Your task to perform on an android device: delete the emails in spam in the gmail app Image 0: 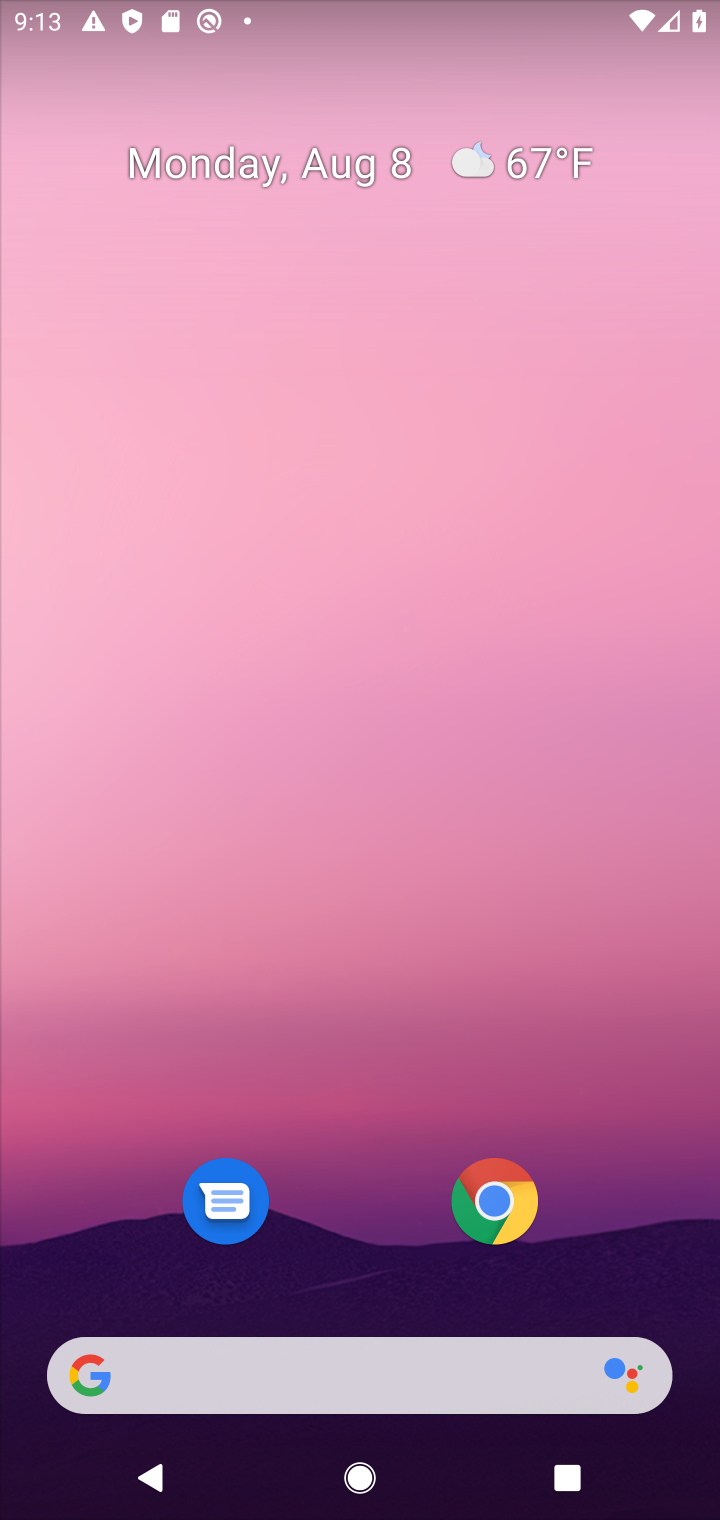
Step 0: press home button
Your task to perform on an android device: delete the emails in spam in the gmail app Image 1: 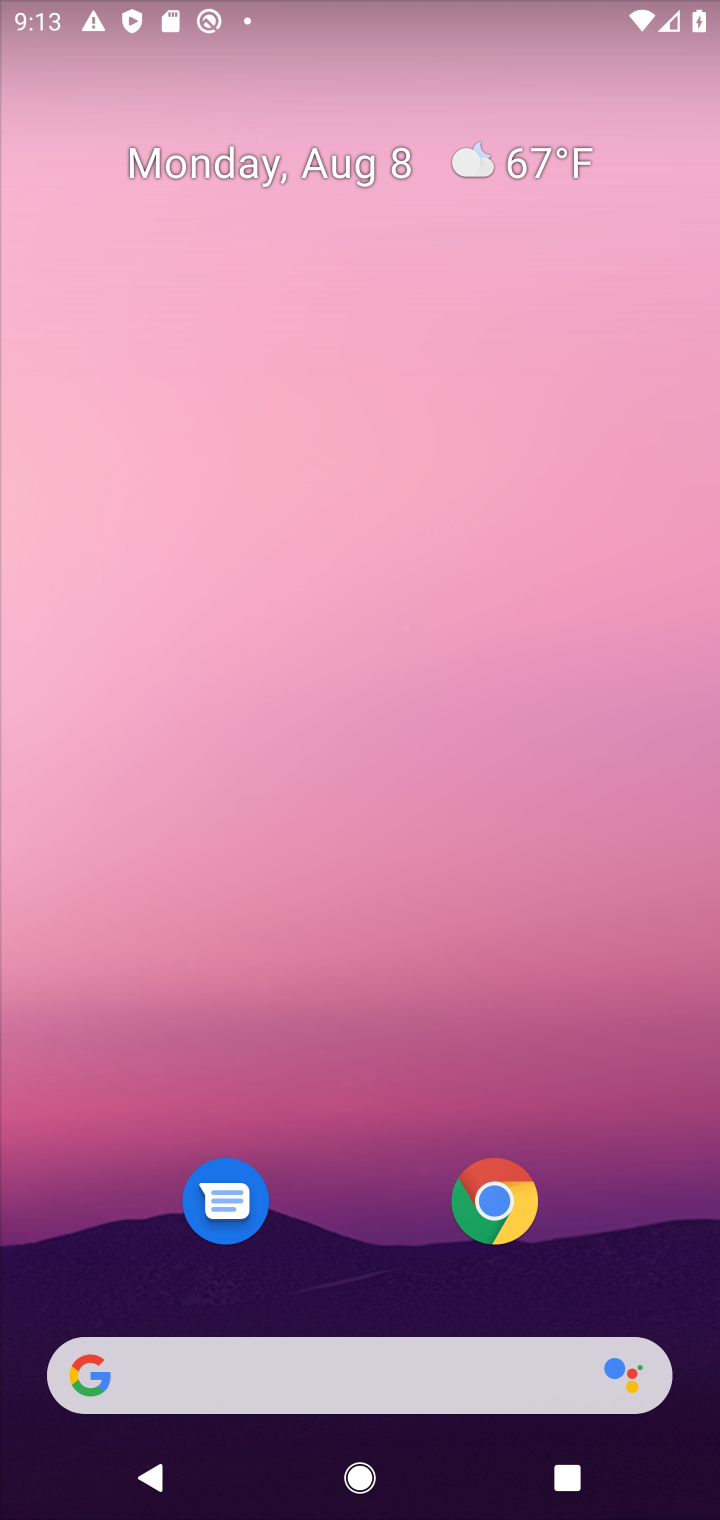
Step 1: click (681, 1088)
Your task to perform on an android device: delete the emails in spam in the gmail app Image 2: 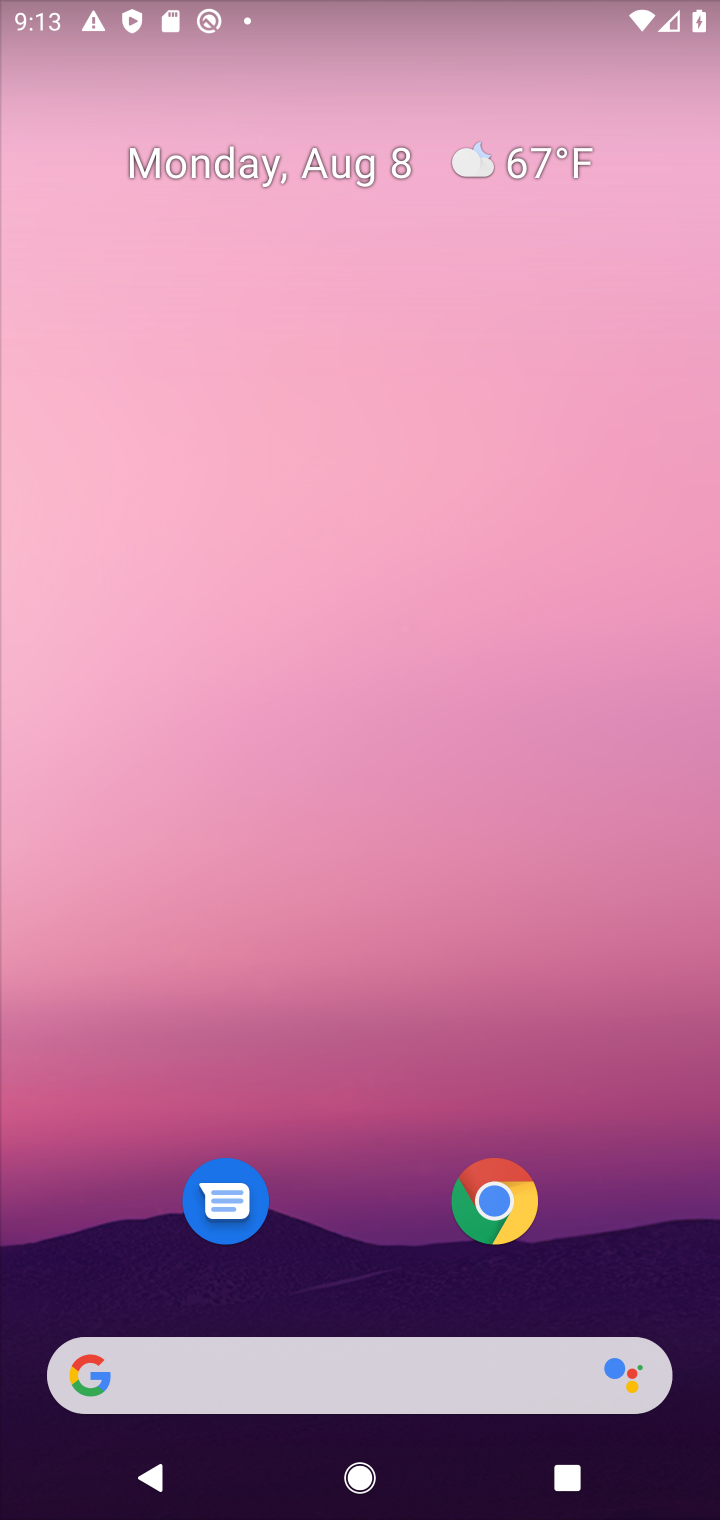
Step 2: drag from (327, 896) to (371, 404)
Your task to perform on an android device: delete the emails in spam in the gmail app Image 3: 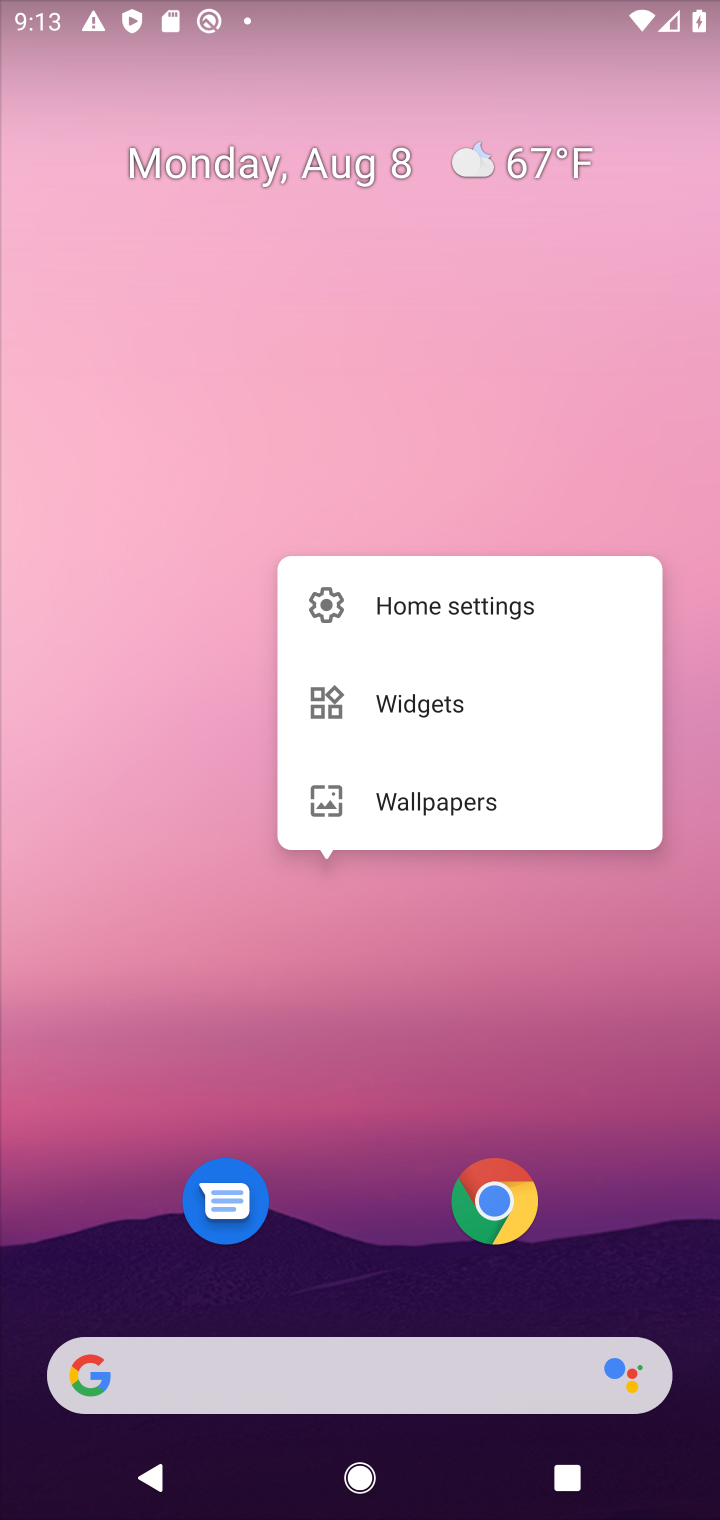
Step 3: click (162, 879)
Your task to perform on an android device: delete the emails in spam in the gmail app Image 4: 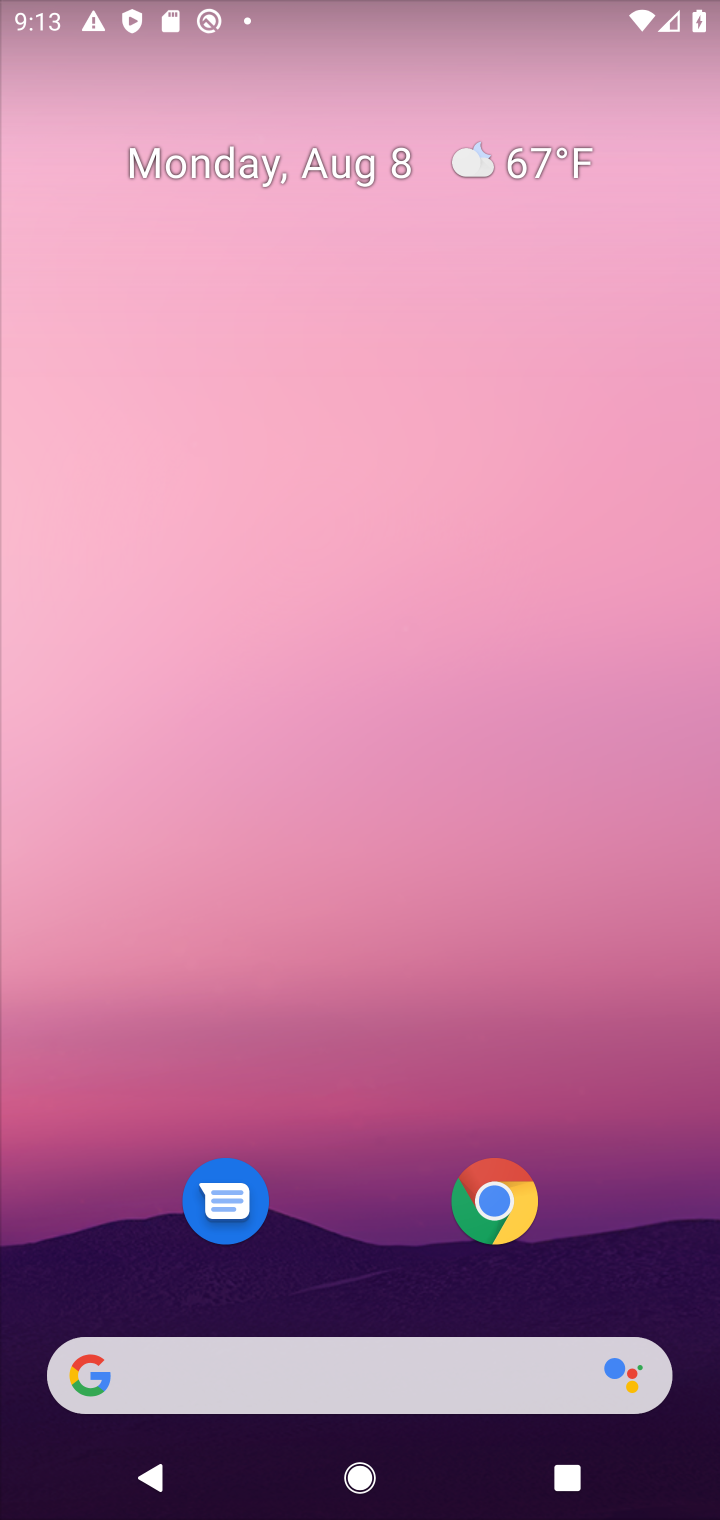
Step 4: drag from (351, 1240) to (387, 210)
Your task to perform on an android device: delete the emails in spam in the gmail app Image 5: 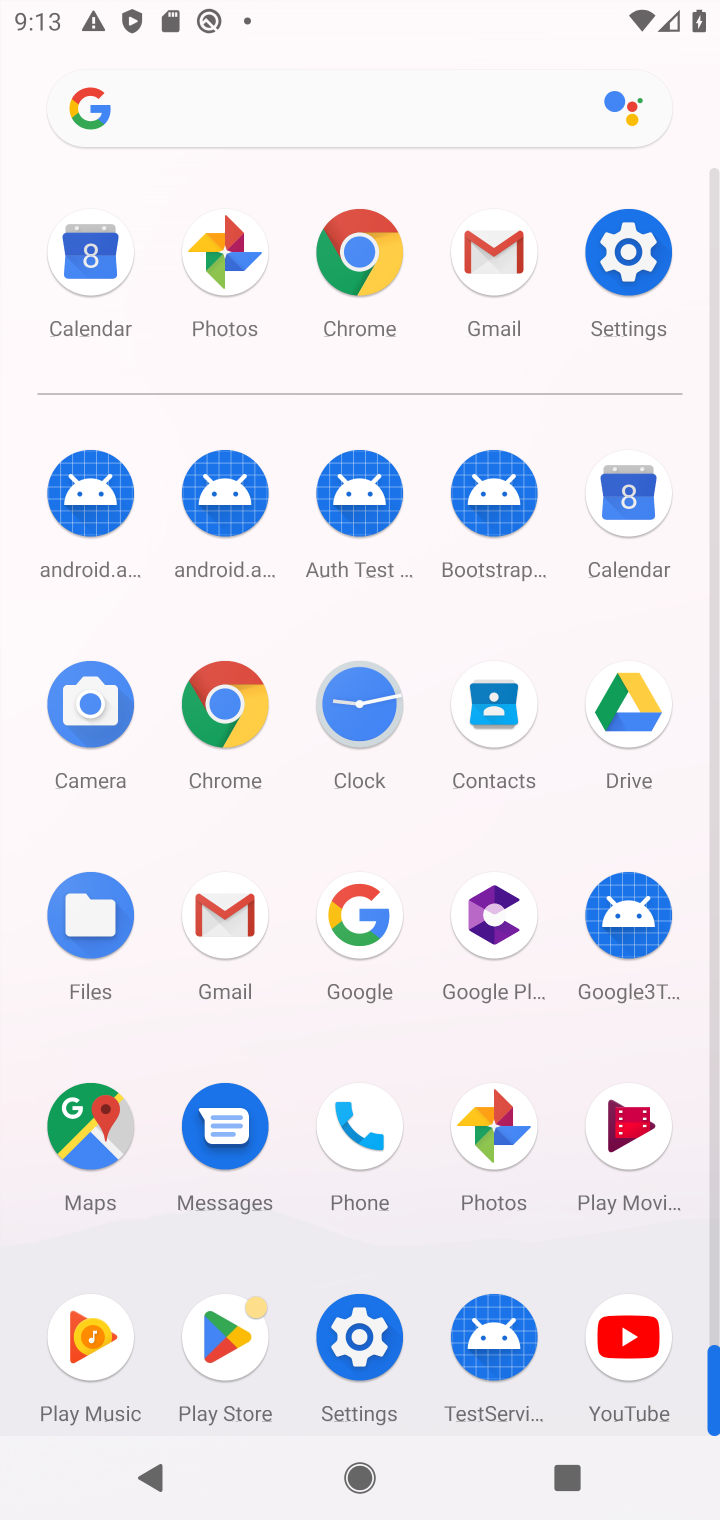
Step 5: click (247, 936)
Your task to perform on an android device: delete the emails in spam in the gmail app Image 6: 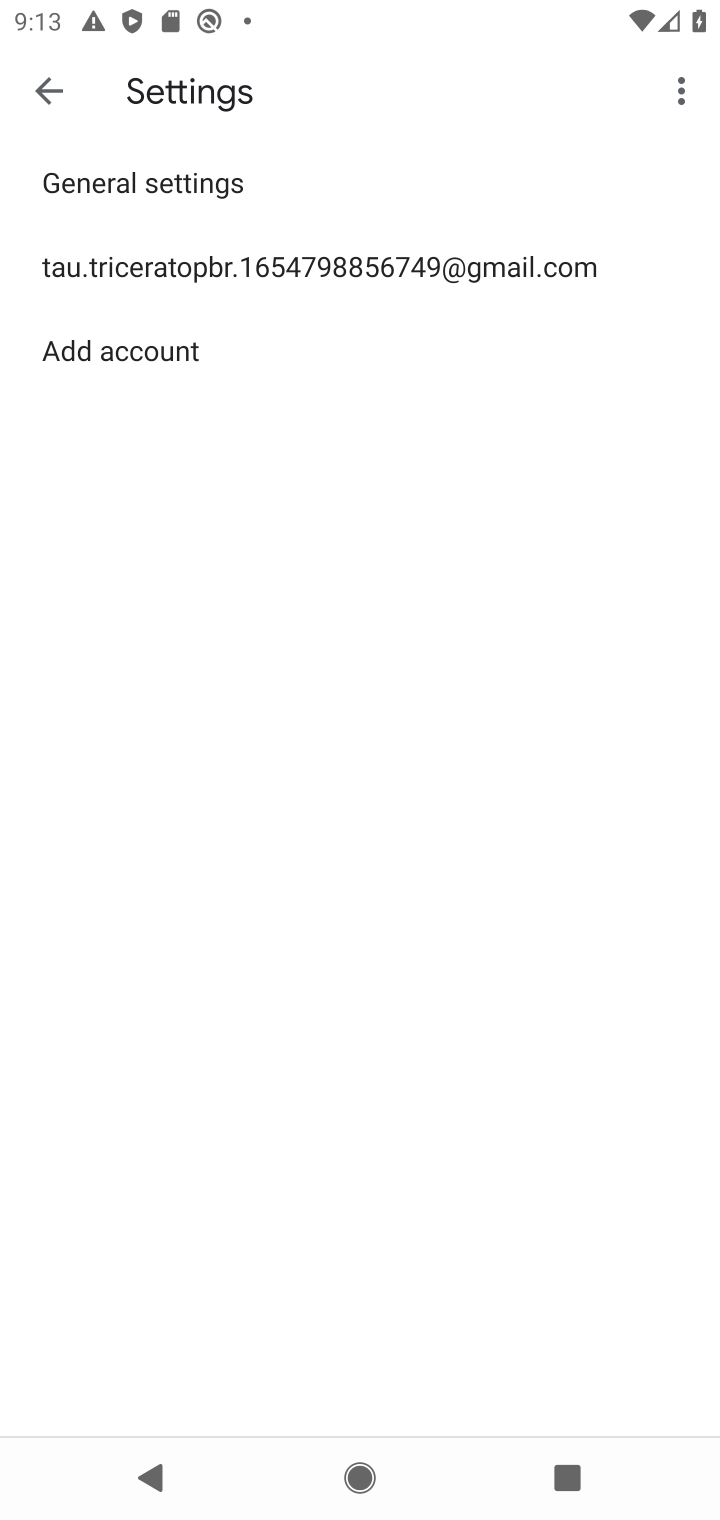
Step 6: press back button
Your task to perform on an android device: delete the emails in spam in the gmail app Image 7: 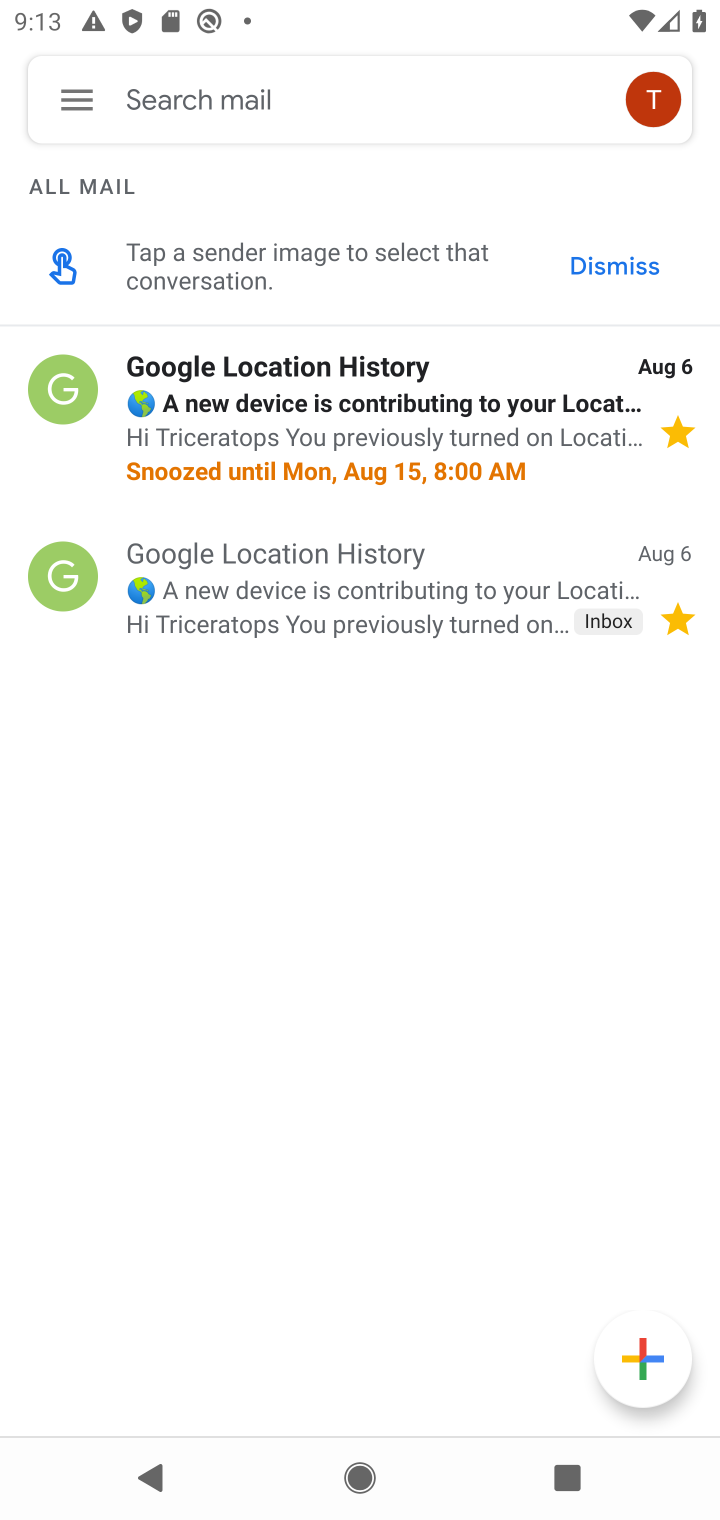
Step 7: click (79, 99)
Your task to perform on an android device: delete the emails in spam in the gmail app Image 8: 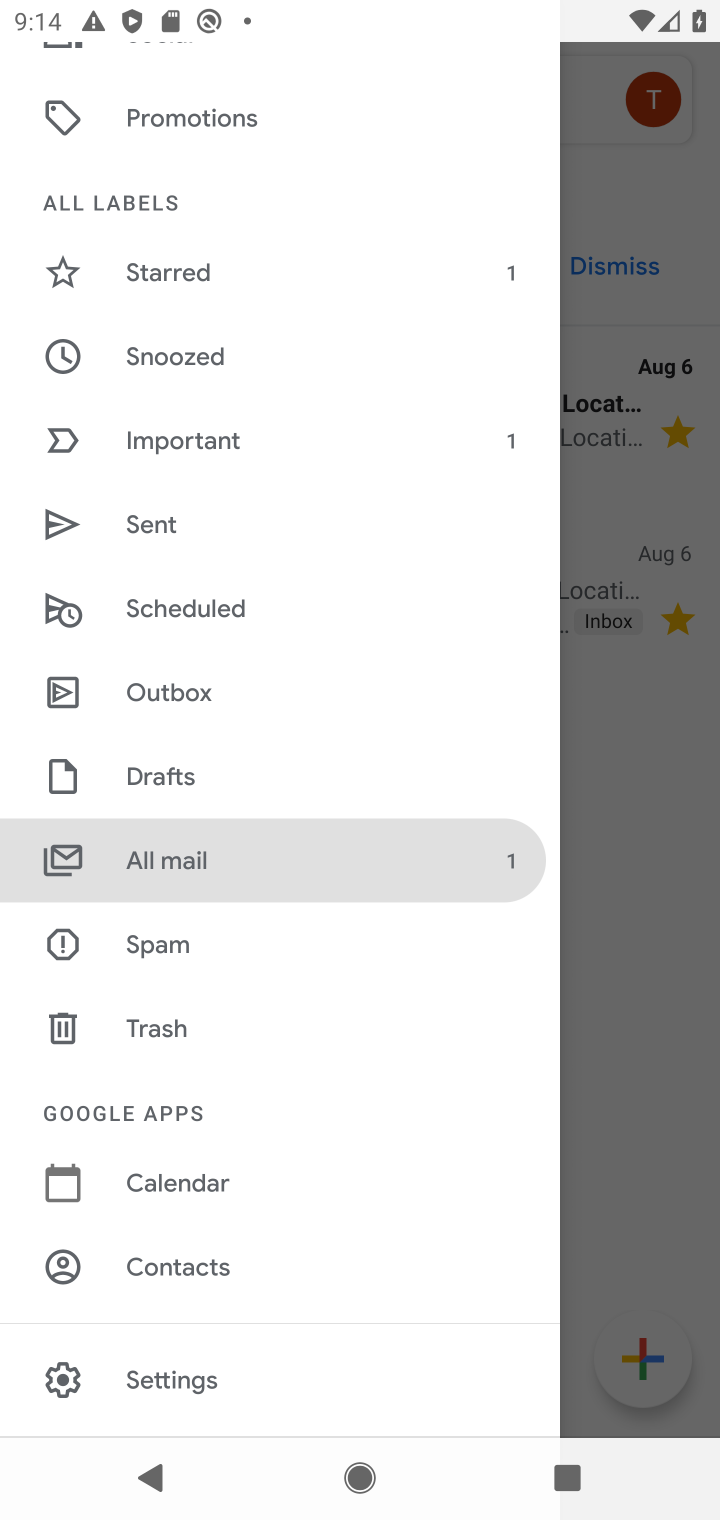
Step 8: click (219, 932)
Your task to perform on an android device: delete the emails in spam in the gmail app Image 9: 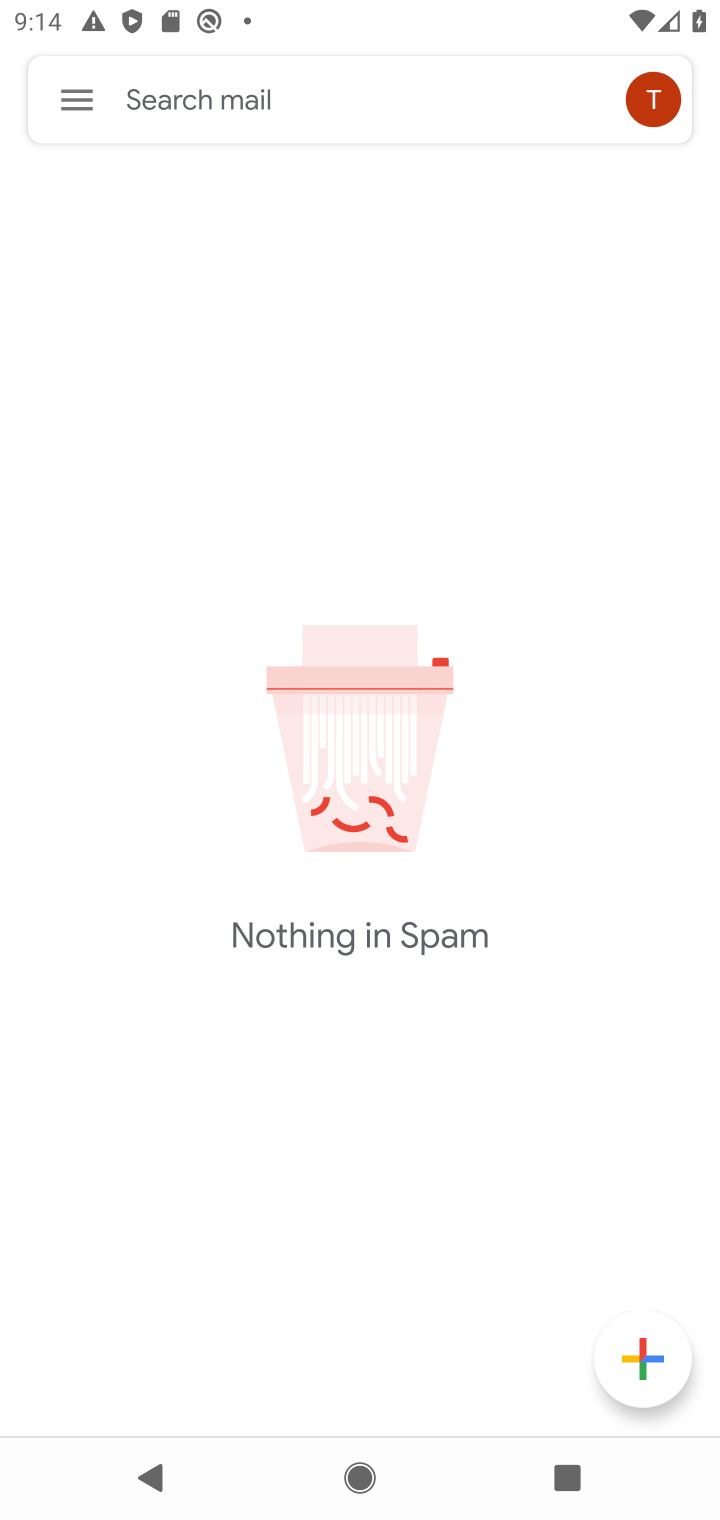
Step 9: task complete